Your task to perform on an android device: What's the news in Ecuador? Image 0: 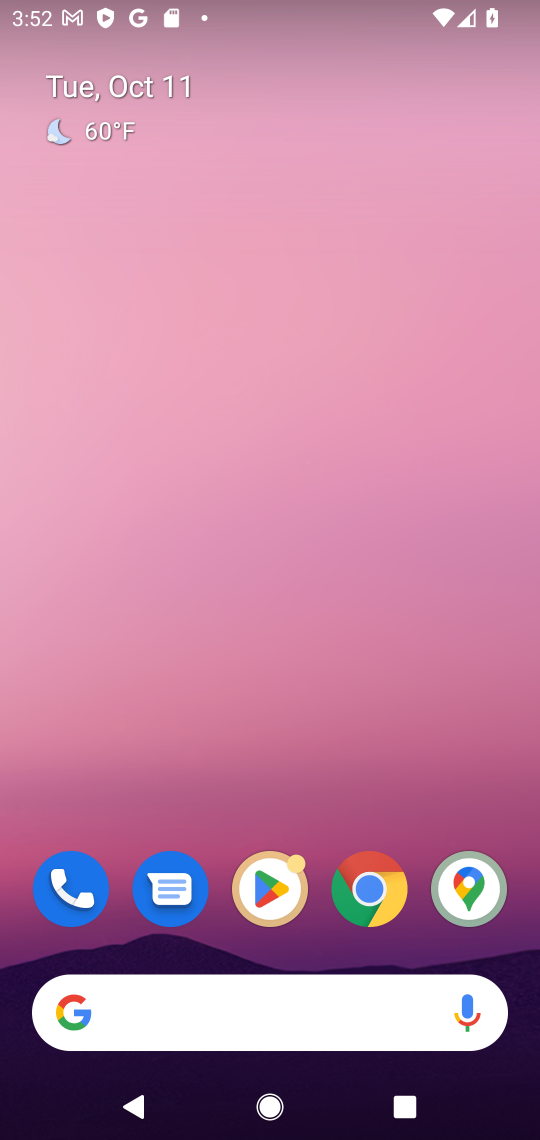
Step 0: drag from (284, 638) to (274, 419)
Your task to perform on an android device: What's the news in Ecuador? Image 1: 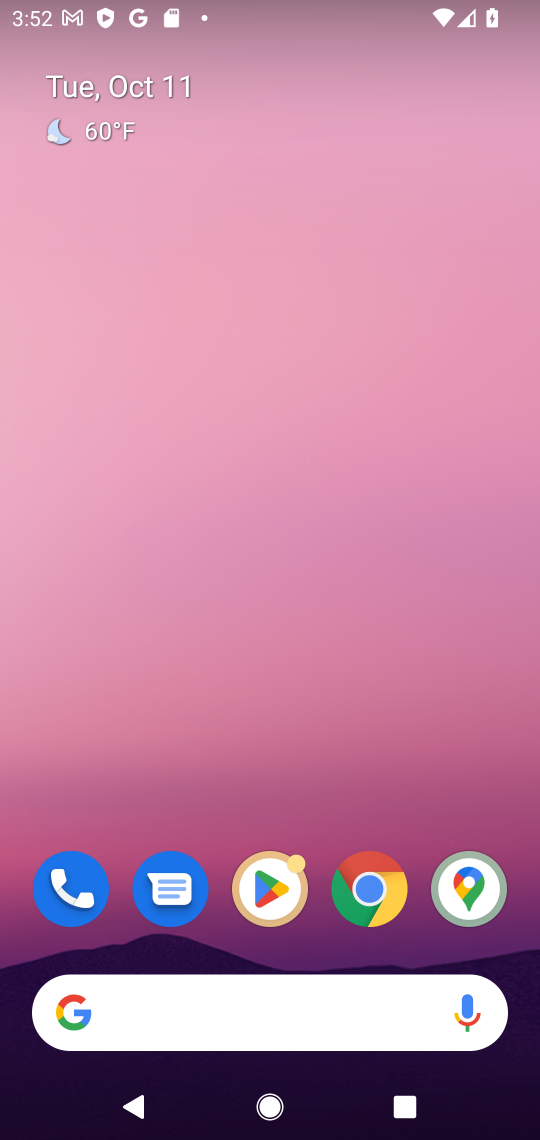
Step 1: drag from (184, 674) to (181, 324)
Your task to perform on an android device: What's the news in Ecuador? Image 2: 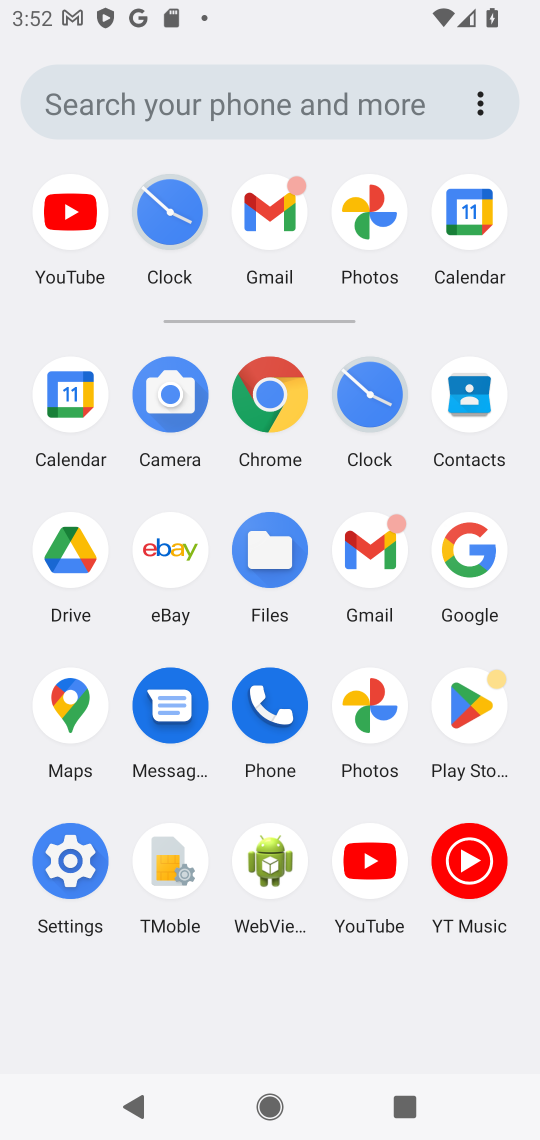
Step 2: click (451, 538)
Your task to perform on an android device: What's the news in Ecuador? Image 3: 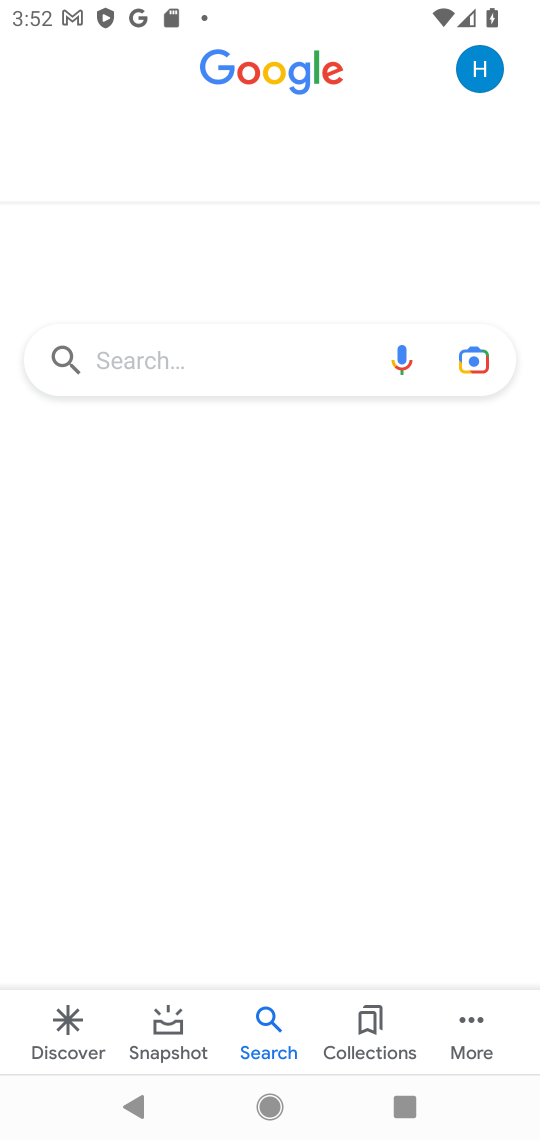
Step 3: click (220, 339)
Your task to perform on an android device: What's the news in Ecuador? Image 4: 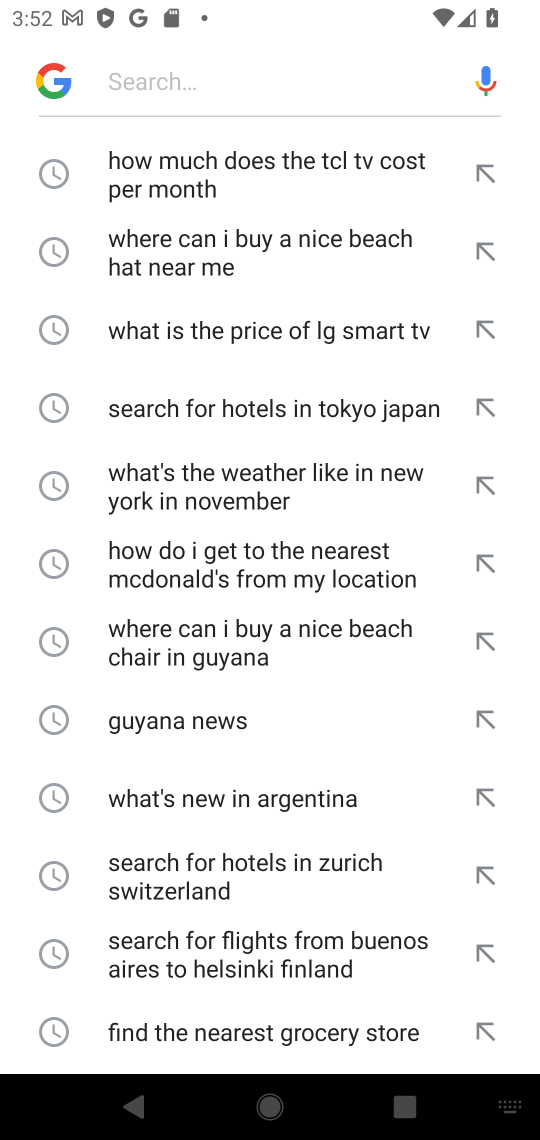
Step 4: type "What's the news in Ecuador "
Your task to perform on an android device: What's the news in Ecuador? Image 5: 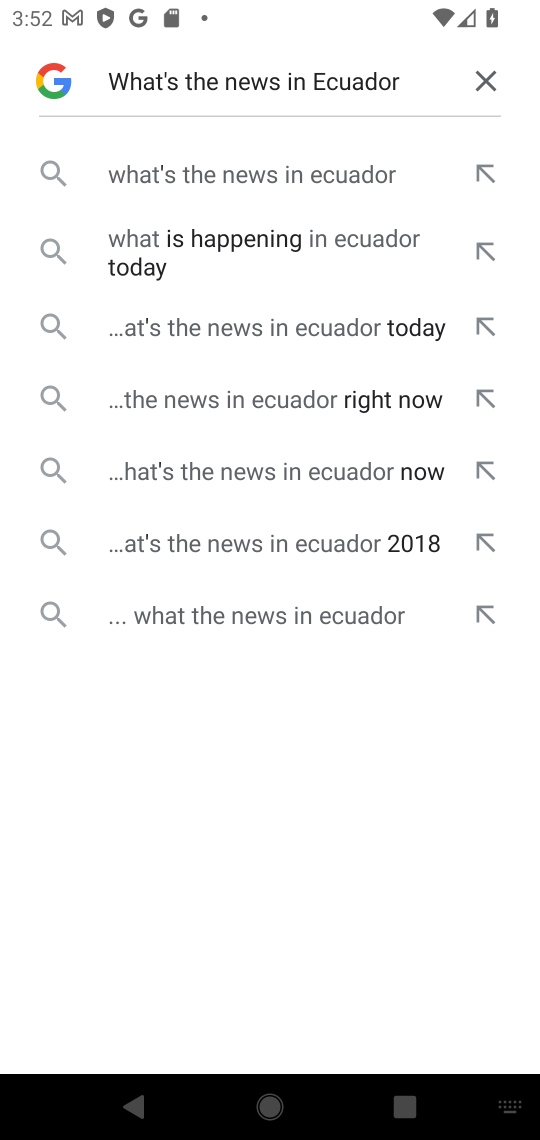
Step 5: click (214, 166)
Your task to perform on an android device: What's the news in Ecuador? Image 6: 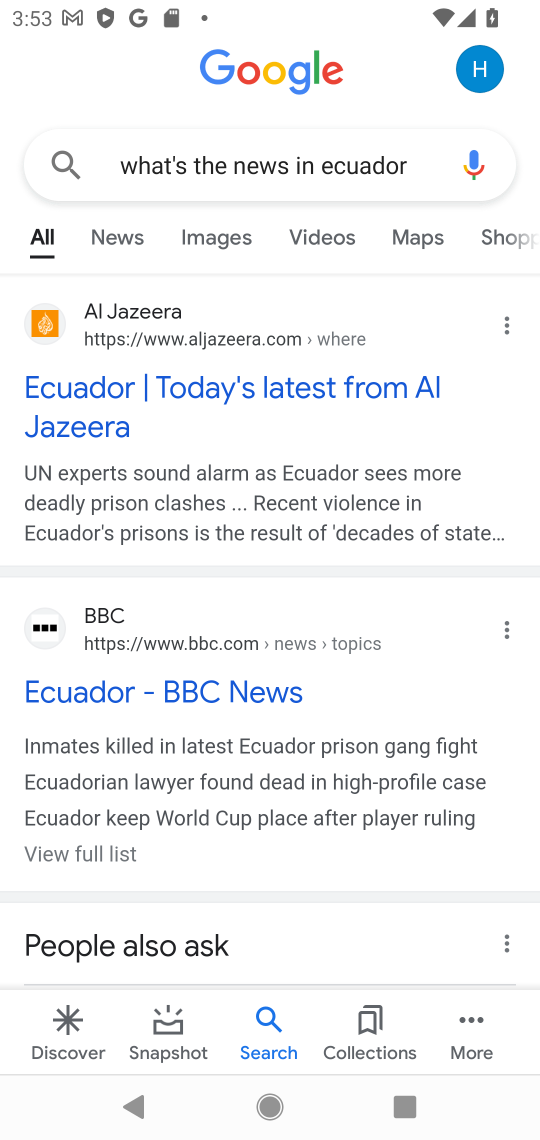
Step 6: click (195, 378)
Your task to perform on an android device: What's the news in Ecuador? Image 7: 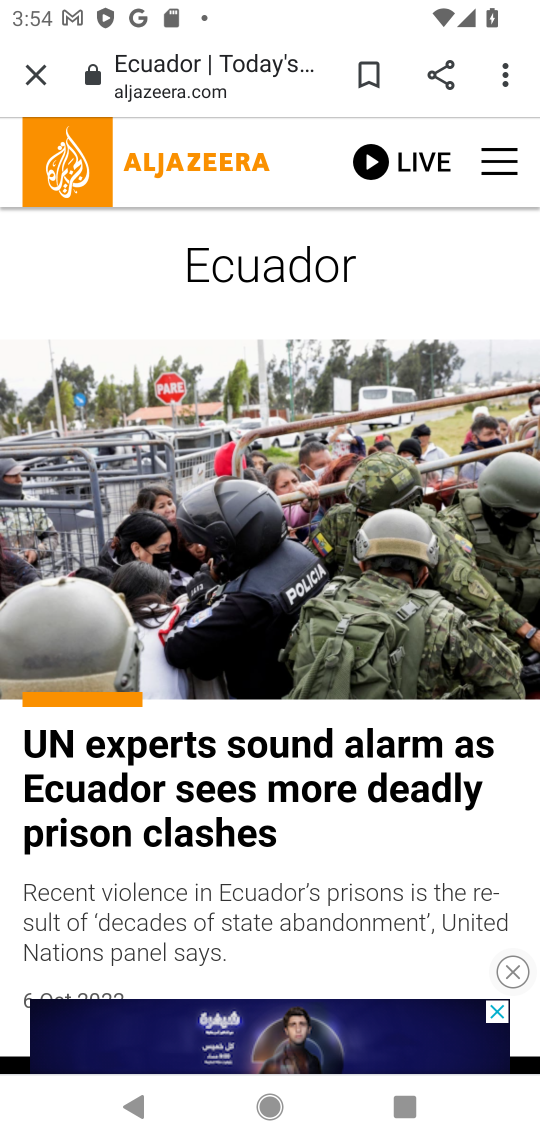
Step 7: drag from (235, 873) to (319, 461)
Your task to perform on an android device: What's the news in Ecuador? Image 8: 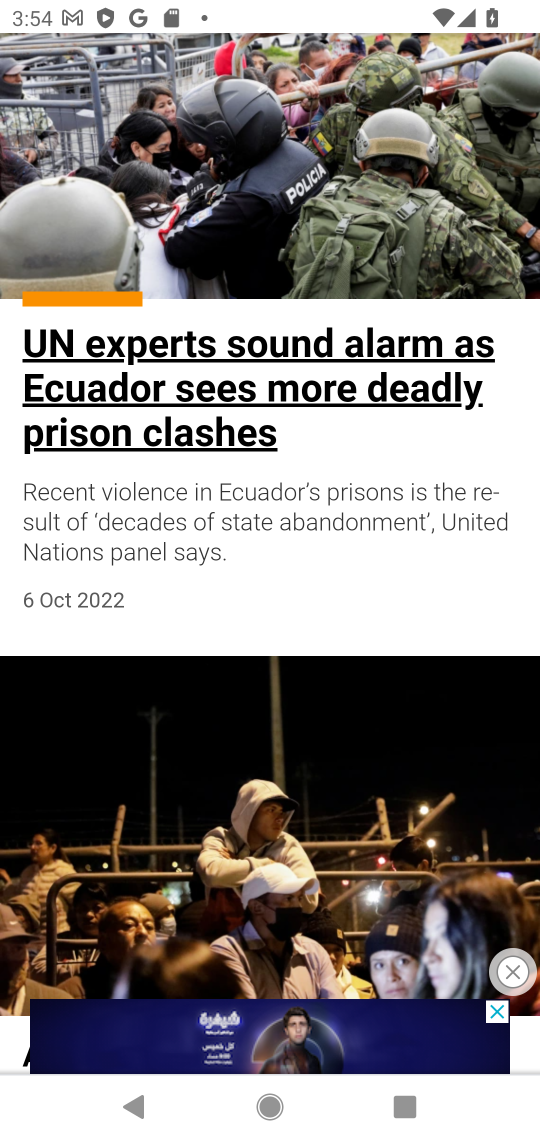
Step 8: click (521, 967)
Your task to perform on an android device: What's the news in Ecuador? Image 9: 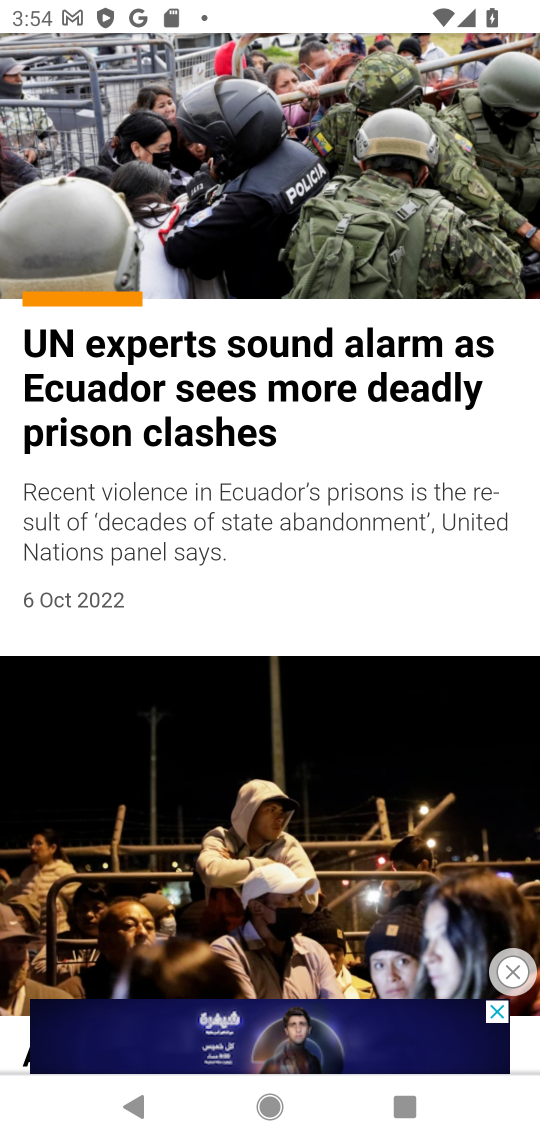
Step 9: task complete